Your task to perform on an android device: turn off javascript in the chrome app Image 0: 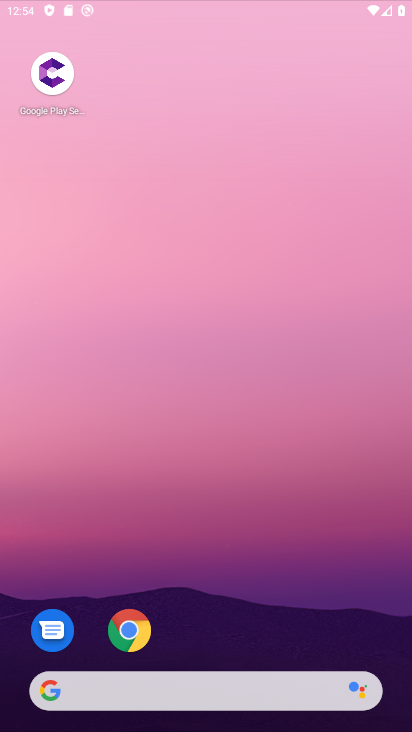
Step 0: drag from (278, 568) to (351, 116)
Your task to perform on an android device: turn off javascript in the chrome app Image 1: 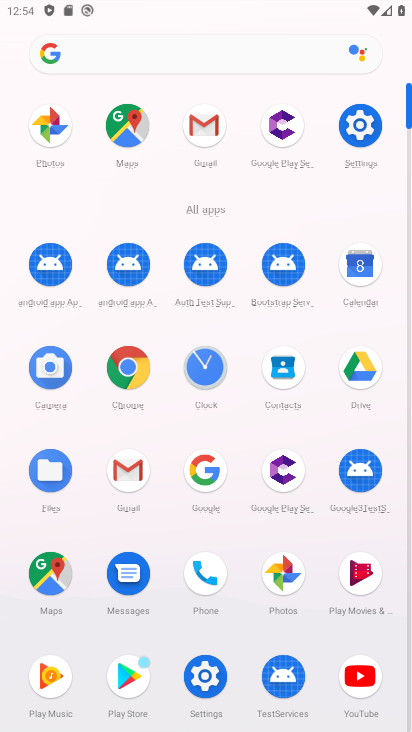
Step 1: click (114, 371)
Your task to perform on an android device: turn off javascript in the chrome app Image 2: 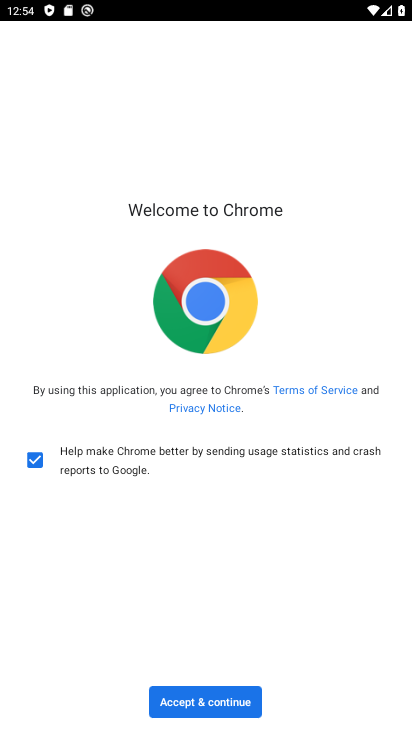
Step 2: click (200, 691)
Your task to perform on an android device: turn off javascript in the chrome app Image 3: 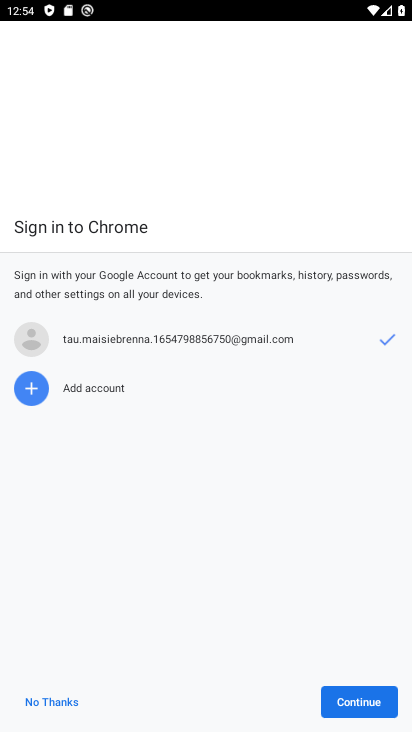
Step 3: click (345, 685)
Your task to perform on an android device: turn off javascript in the chrome app Image 4: 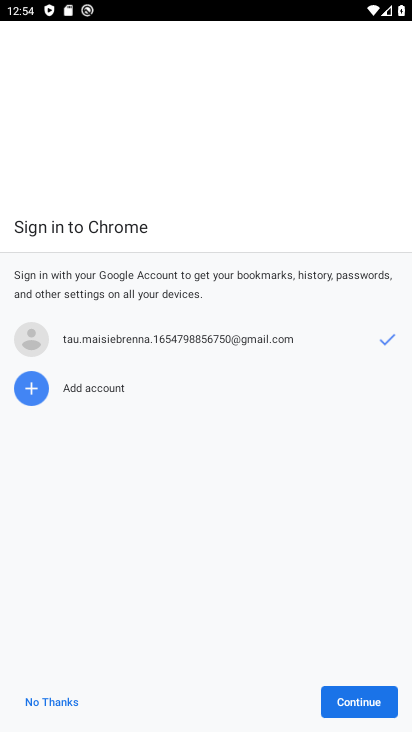
Step 4: click (364, 702)
Your task to perform on an android device: turn off javascript in the chrome app Image 5: 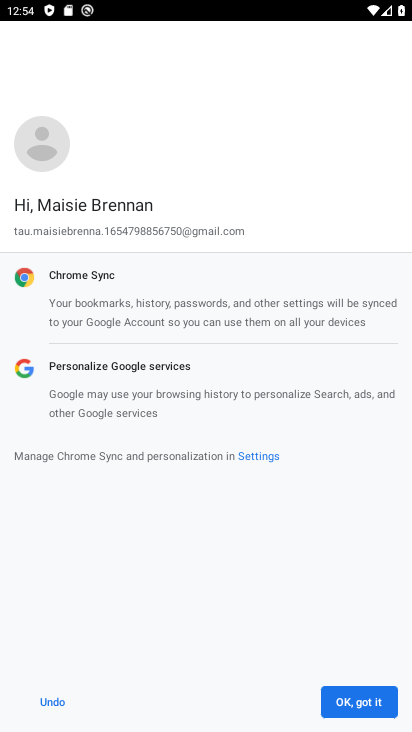
Step 5: click (366, 699)
Your task to perform on an android device: turn off javascript in the chrome app Image 6: 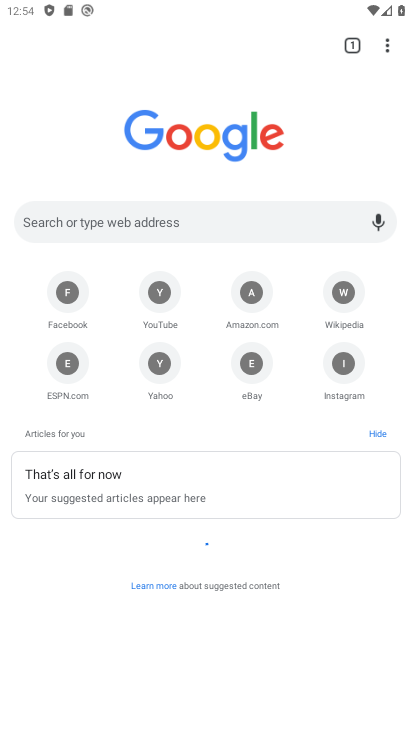
Step 6: drag from (388, 37) to (300, 386)
Your task to perform on an android device: turn off javascript in the chrome app Image 7: 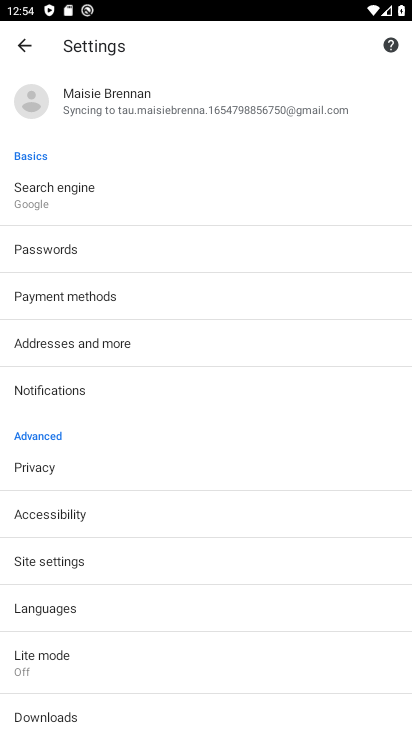
Step 7: drag from (183, 643) to (324, 279)
Your task to perform on an android device: turn off javascript in the chrome app Image 8: 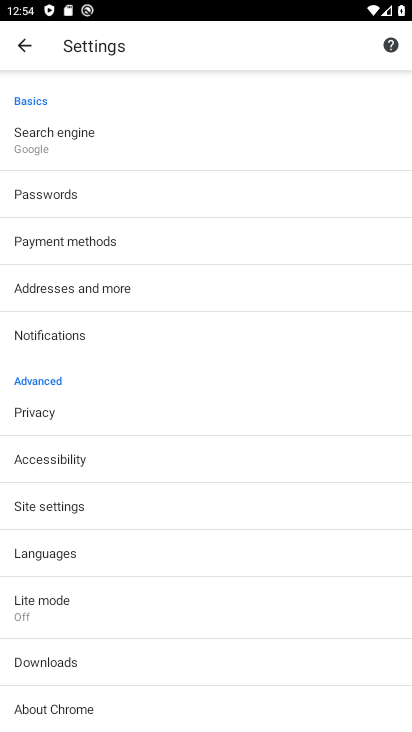
Step 8: click (96, 506)
Your task to perform on an android device: turn off javascript in the chrome app Image 9: 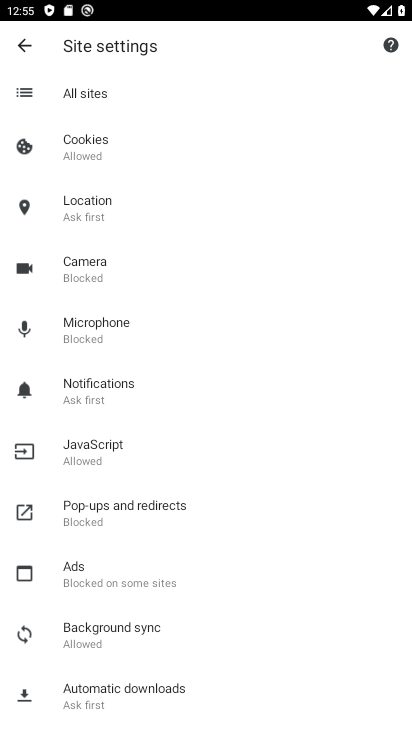
Step 9: drag from (122, 634) to (211, 405)
Your task to perform on an android device: turn off javascript in the chrome app Image 10: 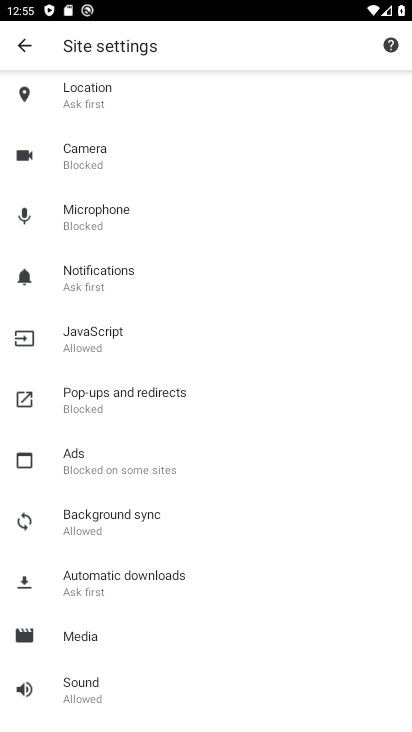
Step 10: click (109, 346)
Your task to perform on an android device: turn off javascript in the chrome app Image 11: 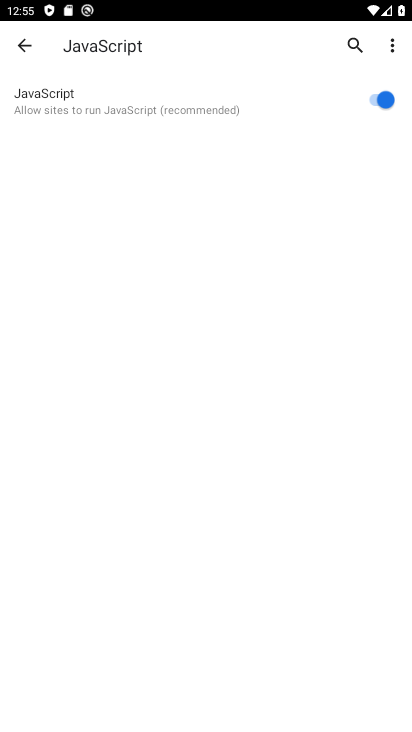
Step 11: click (383, 100)
Your task to perform on an android device: turn off javascript in the chrome app Image 12: 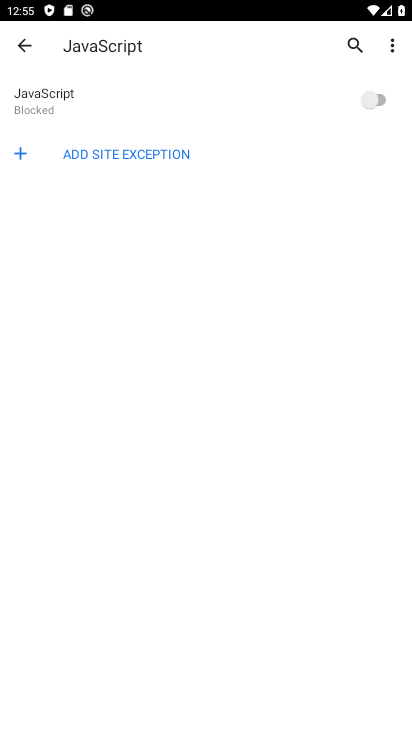
Step 12: task complete